Your task to perform on an android device: turn smart compose on in the gmail app Image 0: 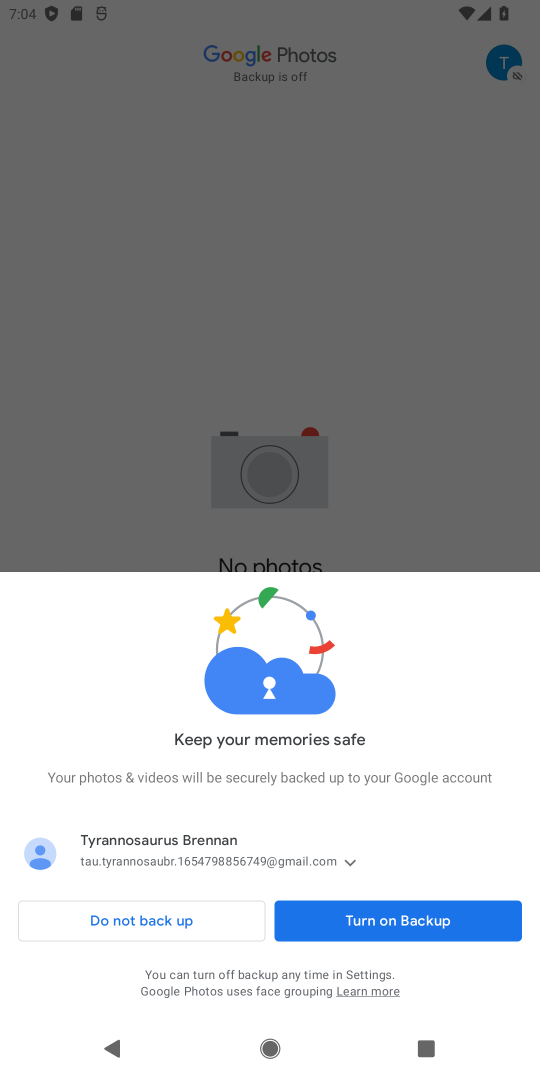
Step 0: press home button
Your task to perform on an android device: turn smart compose on in the gmail app Image 1: 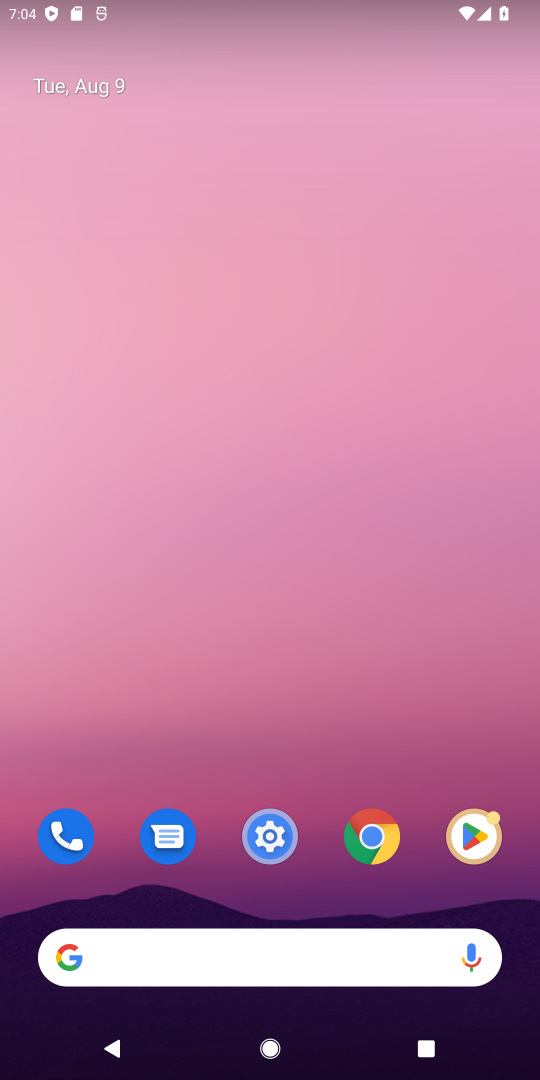
Step 1: drag from (228, 716) to (274, 122)
Your task to perform on an android device: turn smart compose on in the gmail app Image 2: 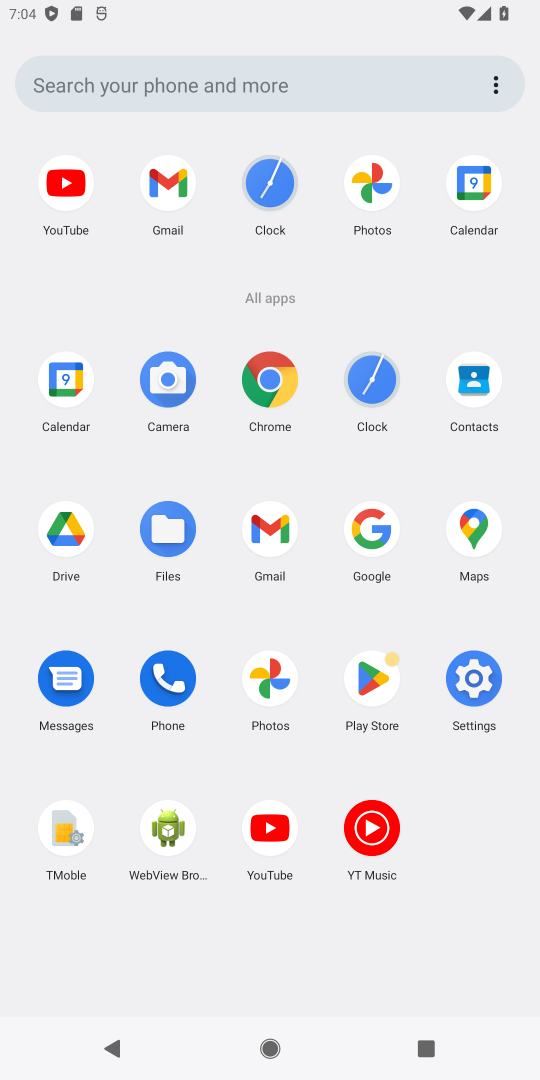
Step 2: click (158, 196)
Your task to perform on an android device: turn smart compose on in the gmail app Image 3: 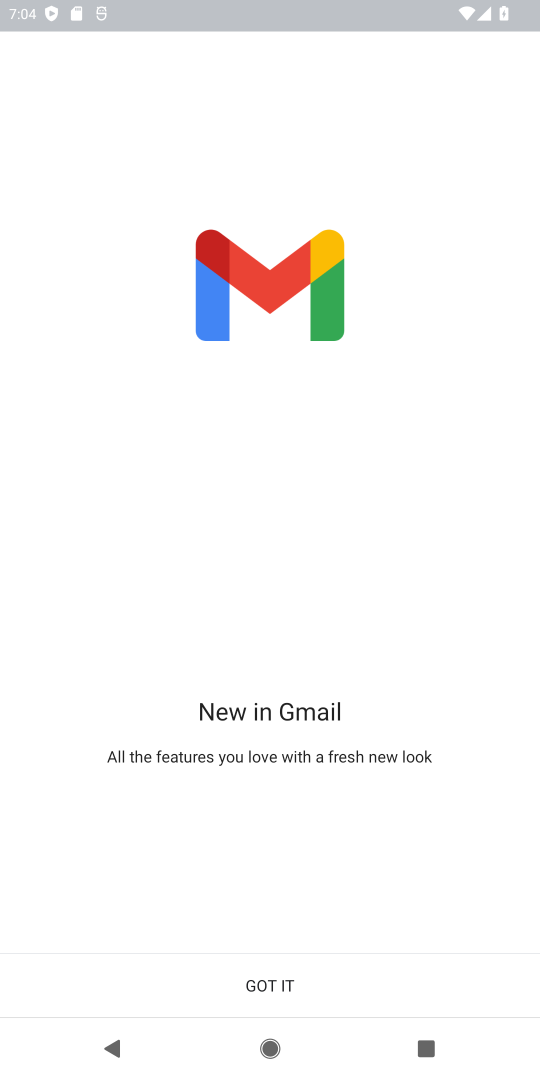
Step 3: click (285, 977)
Your task to perform on an android device: turn smart compose on in the gmail app Image 4: 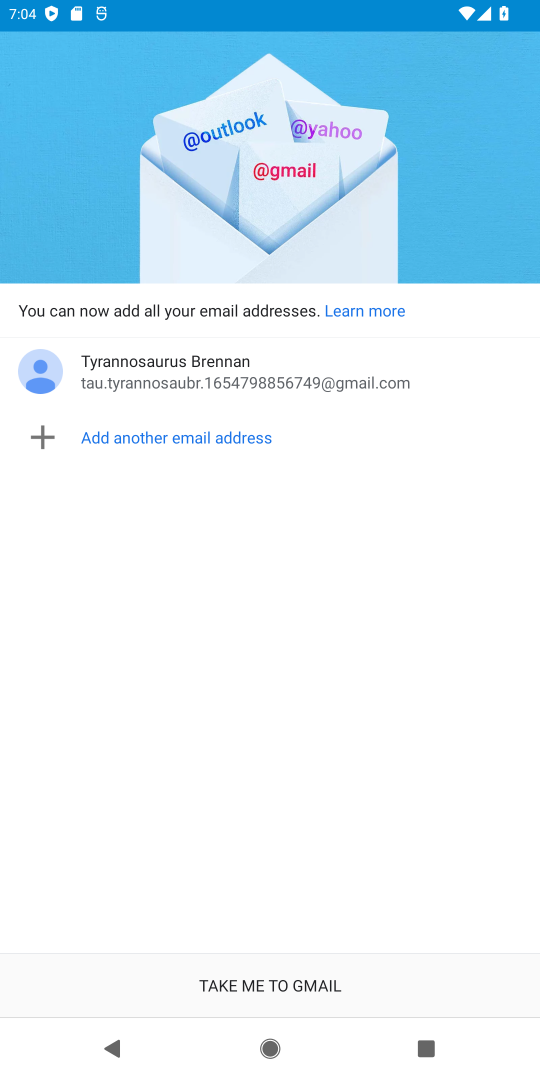
Step 4: click (285, 977)
Your task to perform on an android device: turn smart compose on in the gmail app Image 5: 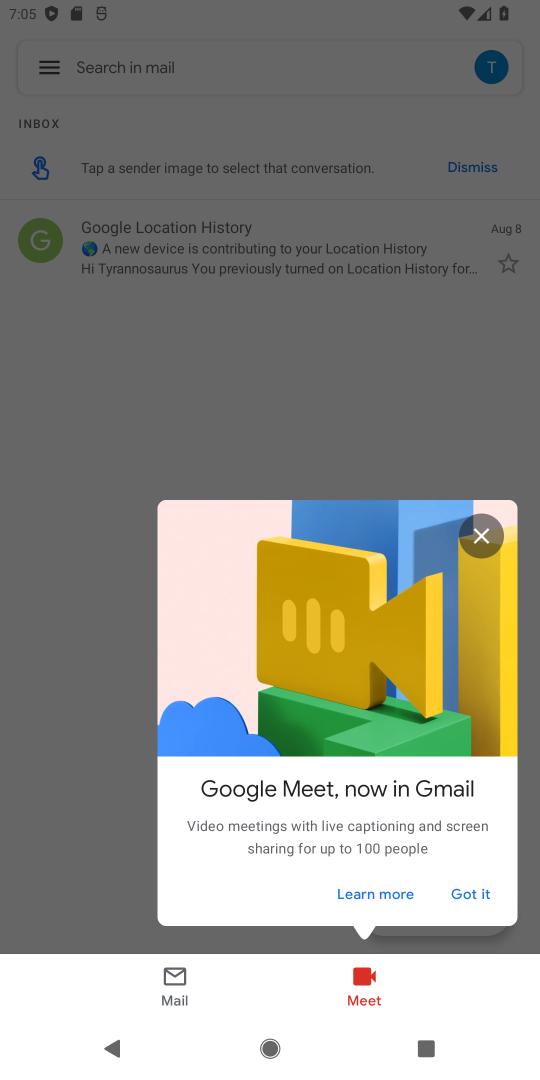
Step 5: click (489, 537)
Your task to perform on an android device: turn smart compose on in the gmail app Image 6: 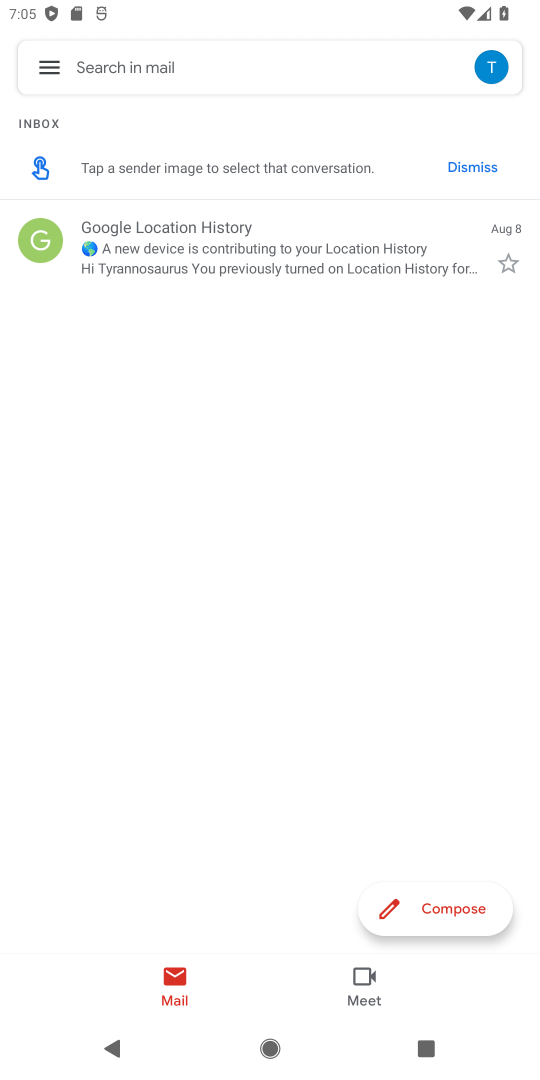
Step 6: click (35, 65)
Your task to perform on an android device: turn smart compose on in the gmail app Image 7: 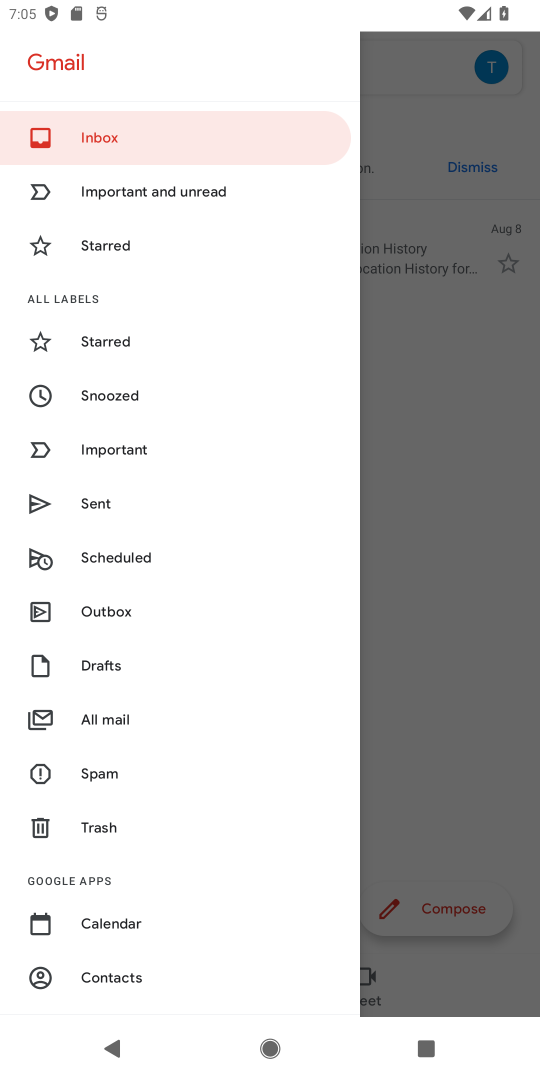
Step 7: drag from (139, 924) to (163, 593)
Your task to perform on an android device: turn smart compose on in the gmail app Image 8: 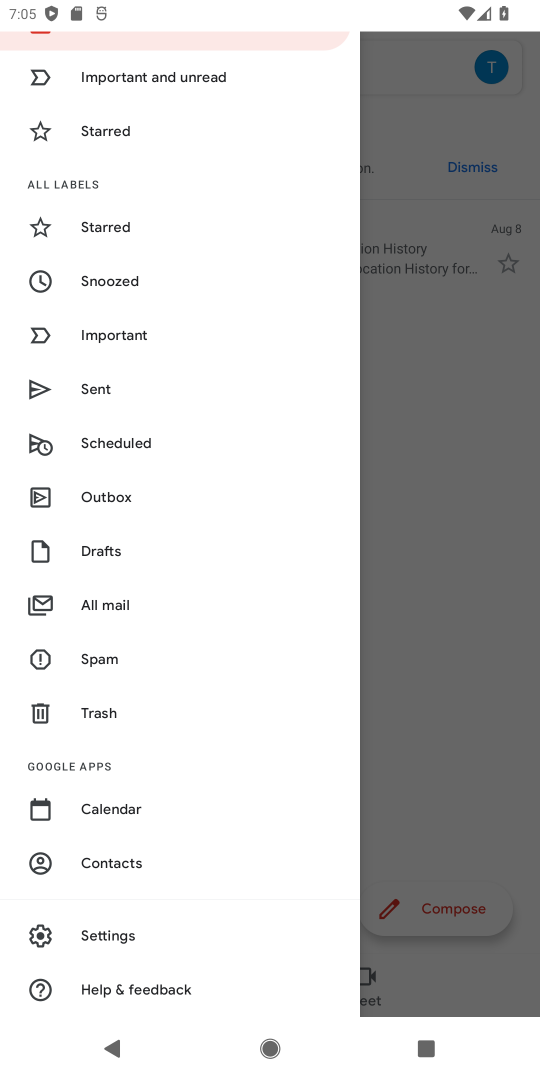
Step 8: click (106, 943)
Your task to perform on an android device: turn smart compose on in the gmail app Image 9: 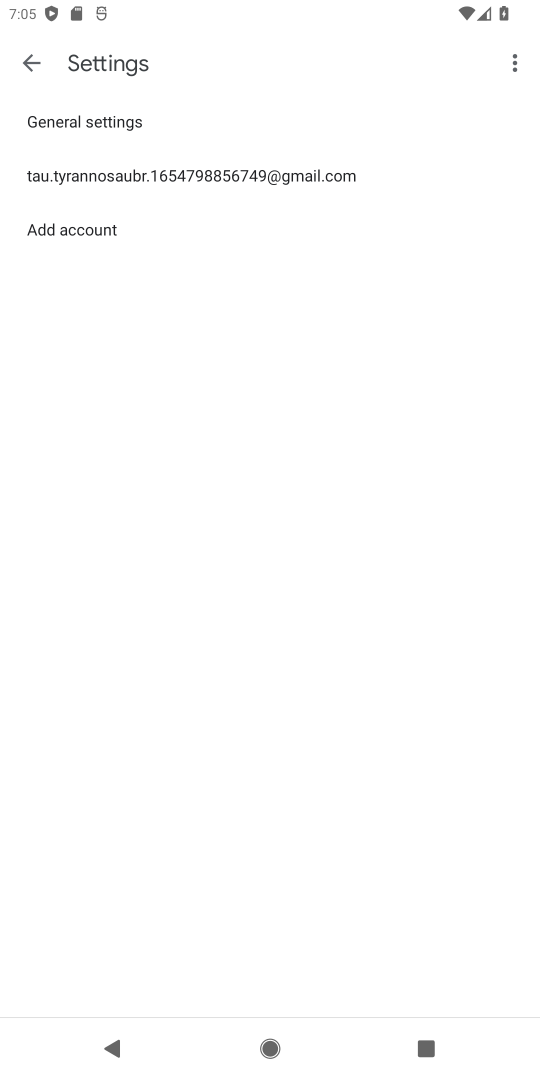
Step 9: click (169, 177)
Your task to perform on an android device: turn smart compose on in the gmail app Image 10: 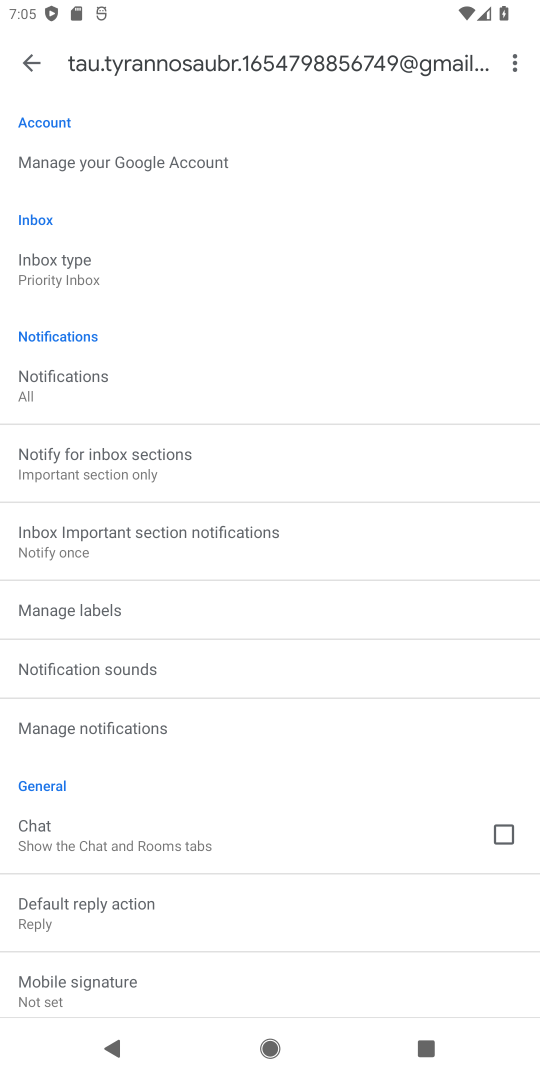
Step 10: task complete